Your task to perform on an android device: check out phone information Image 0: 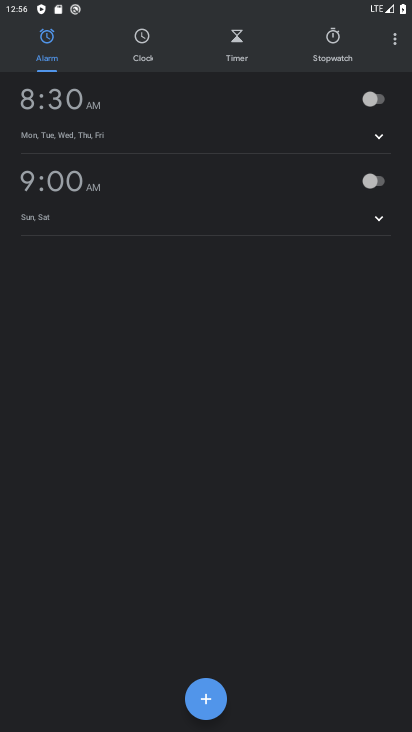
Step 0: press home button
Your task to perform on an android device: check out phone information Image 1: 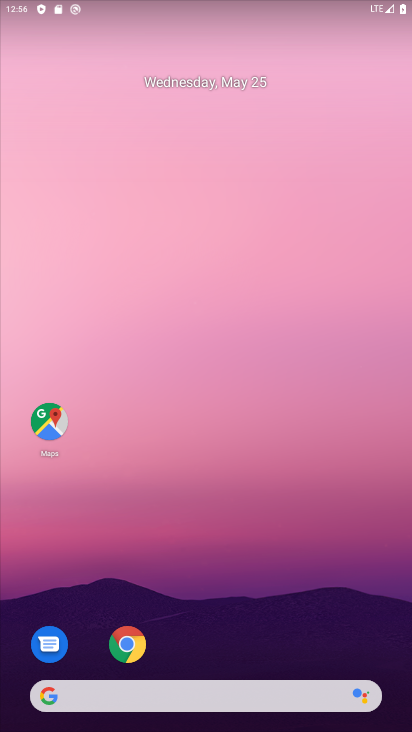
Step 1: drag from (264, 545) to (196, 12)
Your task to perform on an android device: check out phone information Image 2: 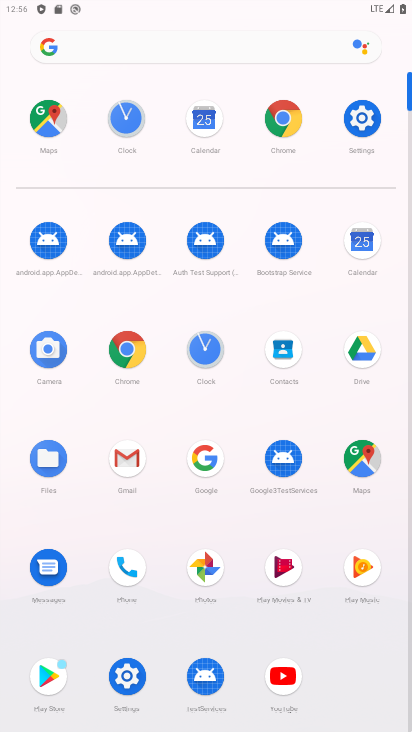
Step 2: click (363, 108)
Your task to perform on an android device: check out phone information Image 3: 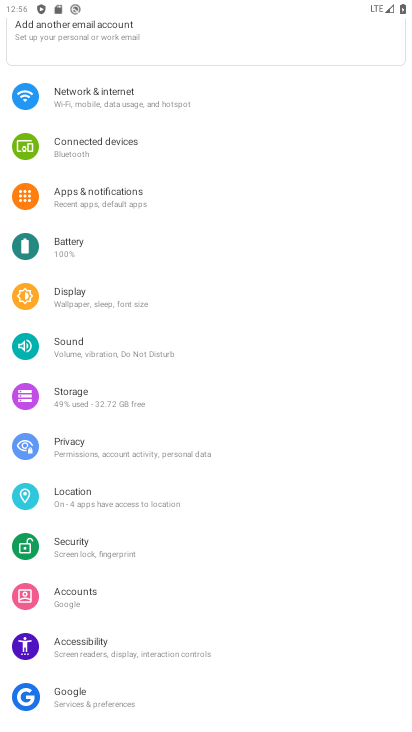
Step 3: drag from (179, 639) to (159, 204)
Your task to perform on an android device: check out phone information Image 4: 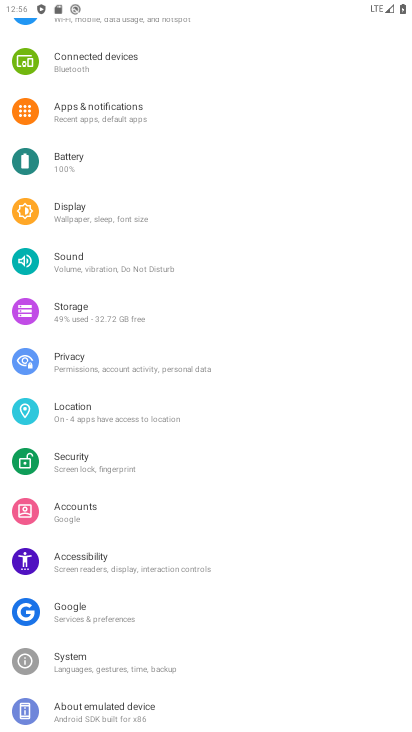
Step 4: click (95, 703)
Your task to perform on an android device: check out phone information Image 5: 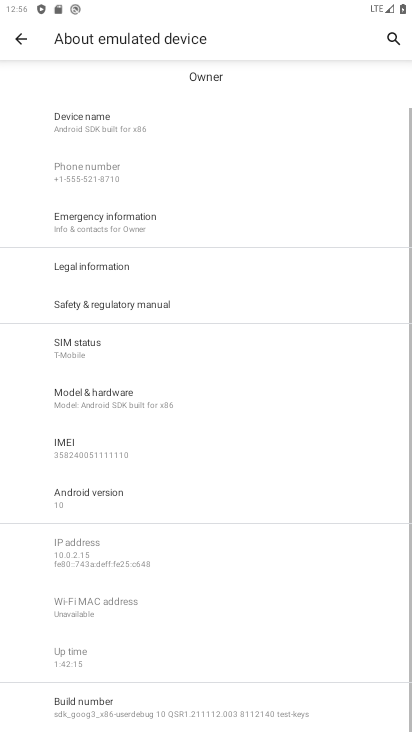
Step 5: task complete